Your task to perform on an android device: Is it going to rain today? Image 0: 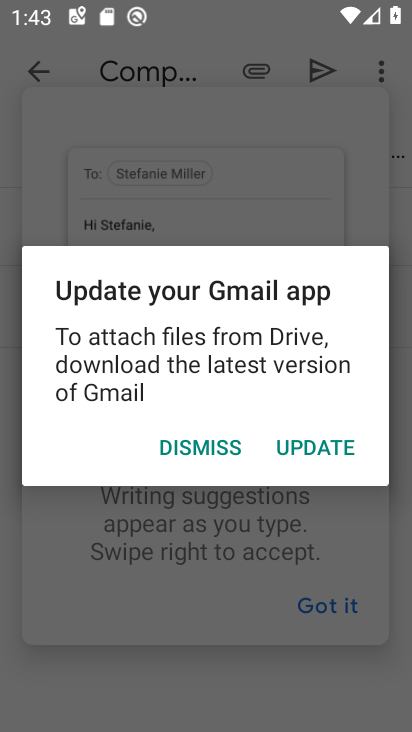
Step 0: press home button
Your task to perform on an android device: Is it going to rain today? Image 1: 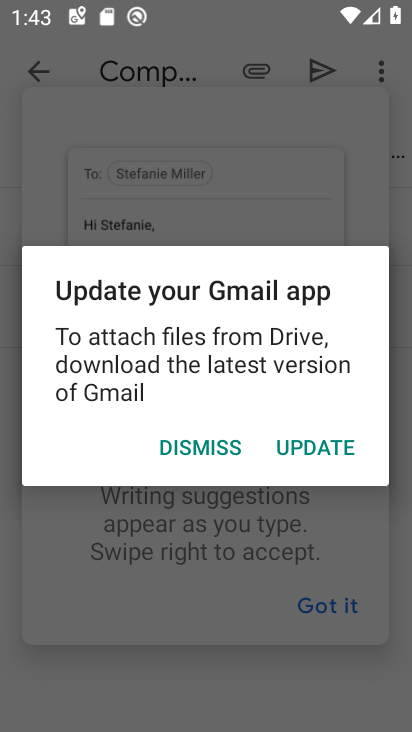
Step 1: press home button
Your task to perform on an android device: Is it going to rain today? Image 2: 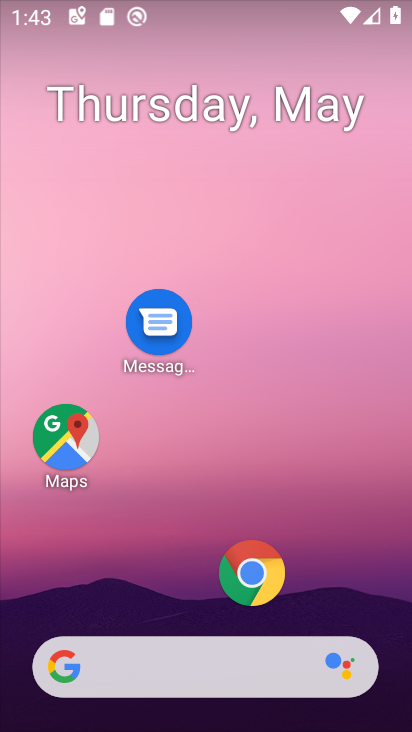
Step 2: drag from (146, 573) to (403, 42)
Your task to perform on an android device: Is it going to rain today? Image 3: 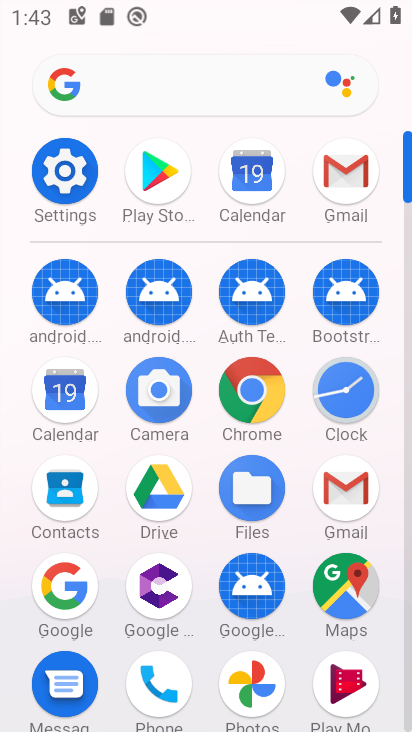
Step 3: type "Is it going to rain today?"
Your task to perform on an android device: Is it going to rain today? Image 4: 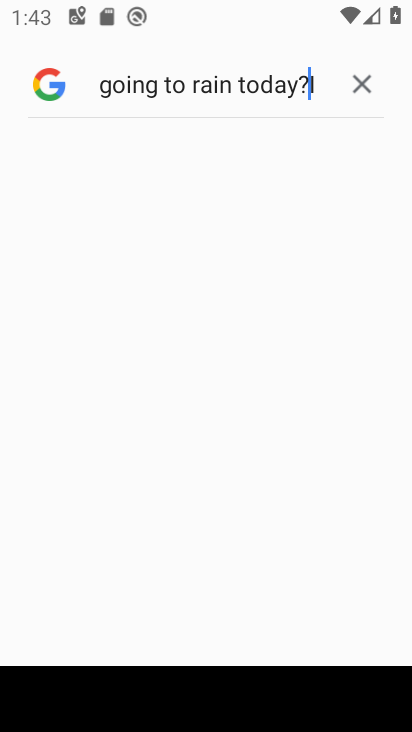
Step 4: type ""
Your task to perform on an android device: Is it going to rain today? Image 5: 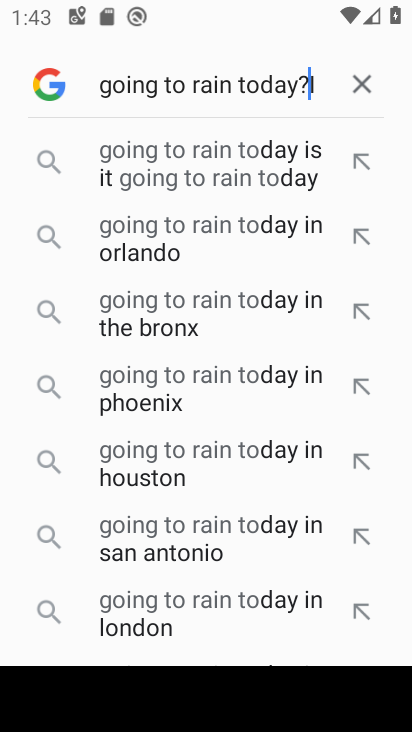
Step 5: click (203, 91)
Your task to perform on an android device: Is it going to rain today? Image 6: 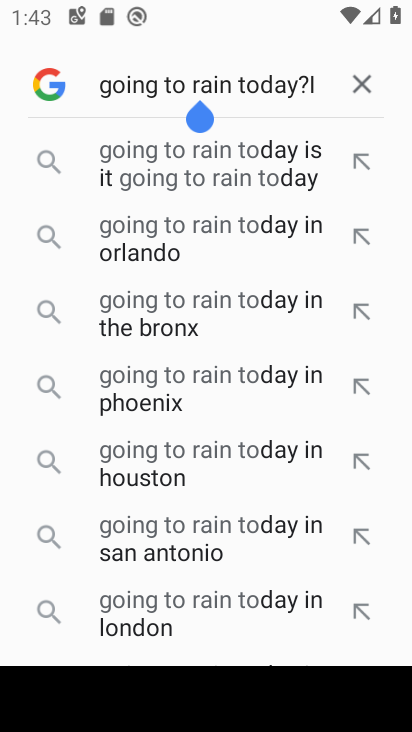
Step 6: click (156, 161)
Your task to perform on an android device: Is it going to rain today? Image 7: 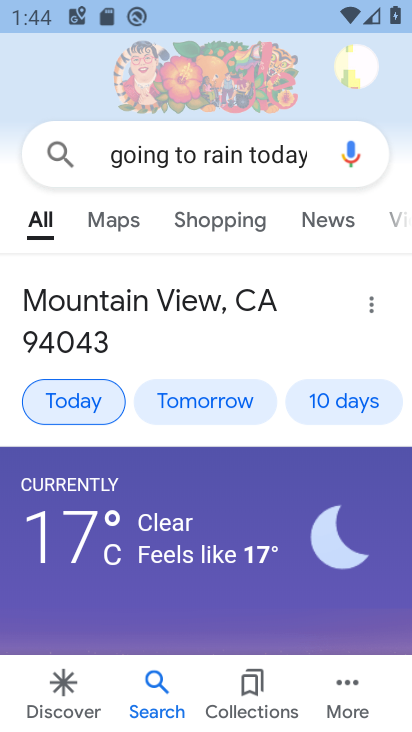
Step 7: task complete